Your task to perform on an android device: Search for Mexican restaurants on Maps Image 0: 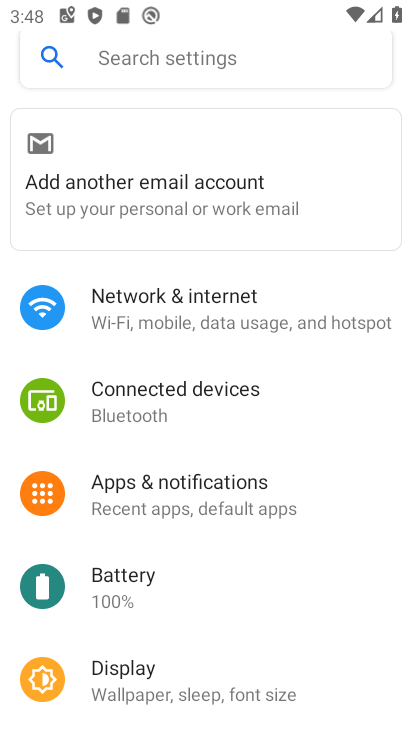
Step 0: press home button
Your task to perform on an android device: Search for Mexican restaurants on Maps Image 1: 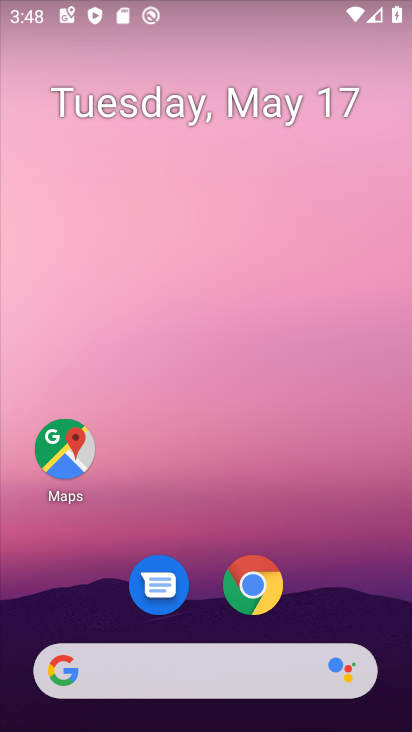
Step 1: click (66, 455)
Your task to perform on an android device: Search for Mexican restaurants on Maps Image 2: 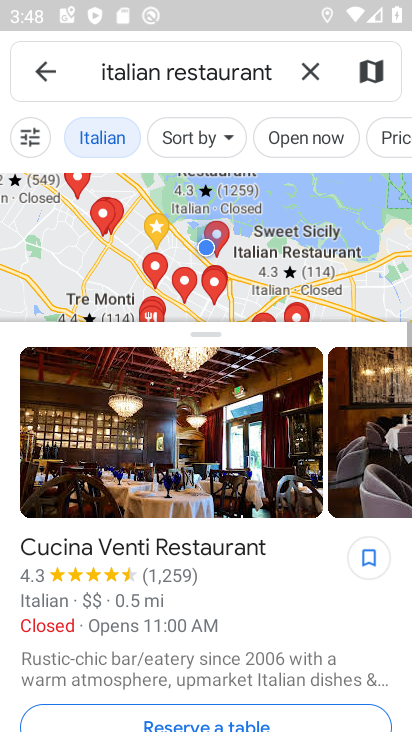
Step 2: click (313, 72)
Your task to perform on an android device: Search for Mexican restaurants on Maps Image 3: 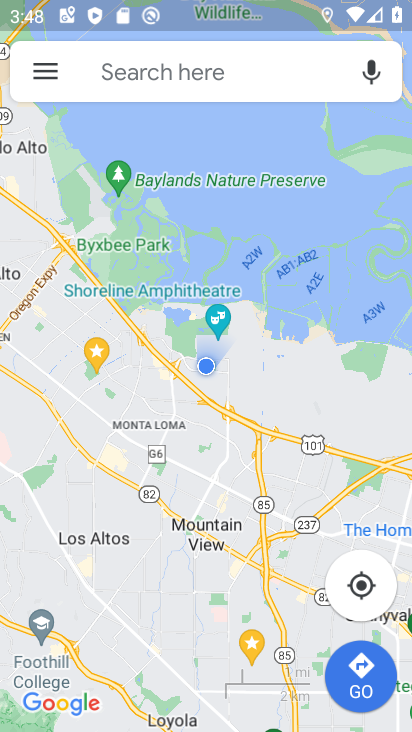
Step 3: click (225, 58)
Your task to perform on an android device: Search for Mexican restaurants on Maps Image 4: 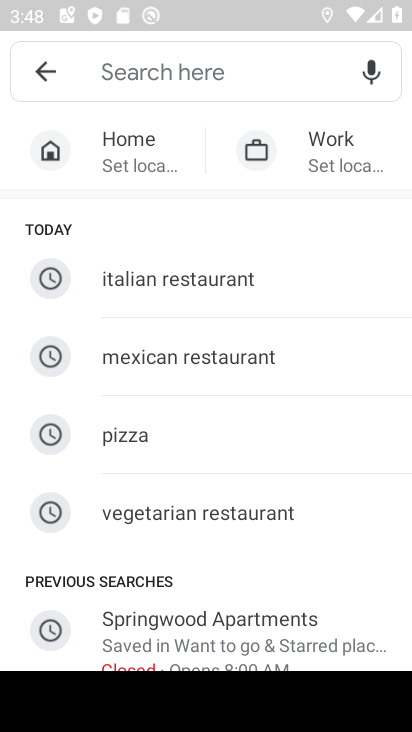
Step 4: click (182, 350)
Your task to perform on an android device: Search for Mexican restaurants on Maps Image 5: 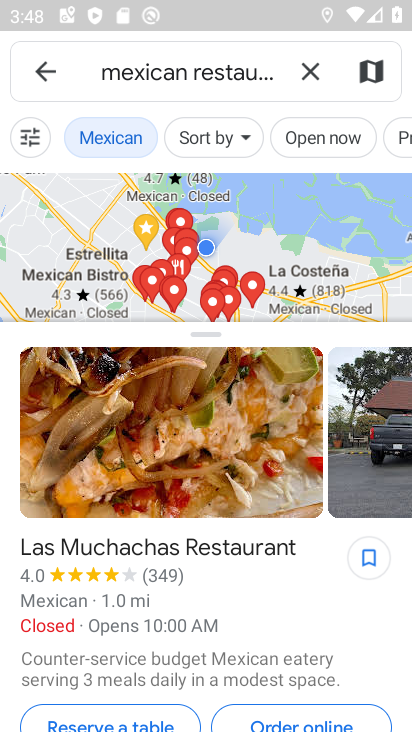
Step 5: task complete